Your task to perform on an android device: Open calendar and show me the third week of next month Image 0: 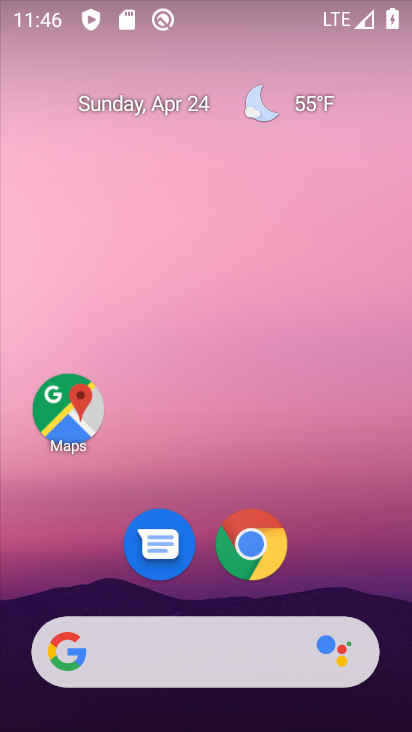
Step 0: drag from (330, 447) to (105, 64)
Your task to perform on an android device: Open calendar and show me the third week of next month Image 1: 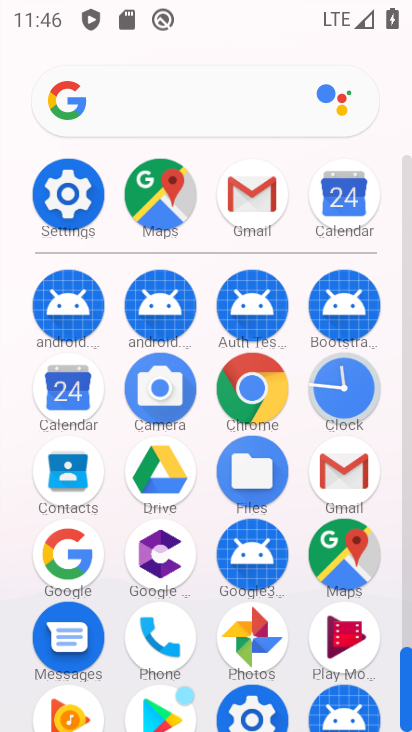
Step 1: click (49, 392)
Your task to perform on an android device: Open calendar and show me the third week of next month Image 2: 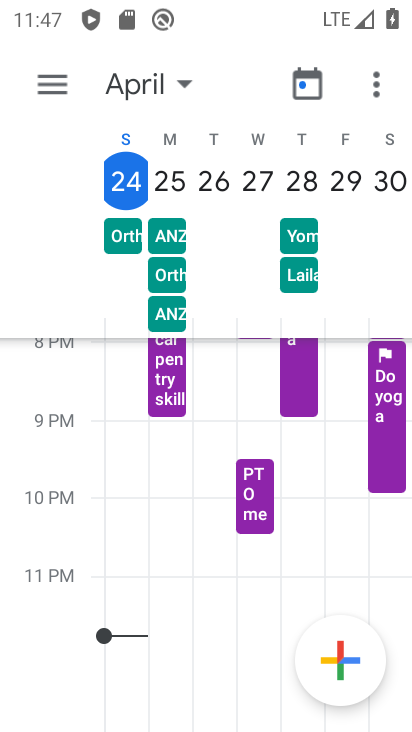
Step 2: task complete